Your task to perform on an android device: Open Android settings Image 0: 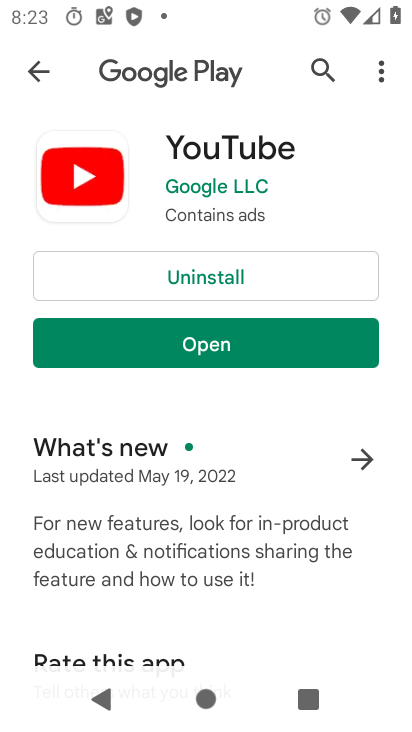
Step 0: press home button
Your task to perform on an android device: Open Android settings Image 1: 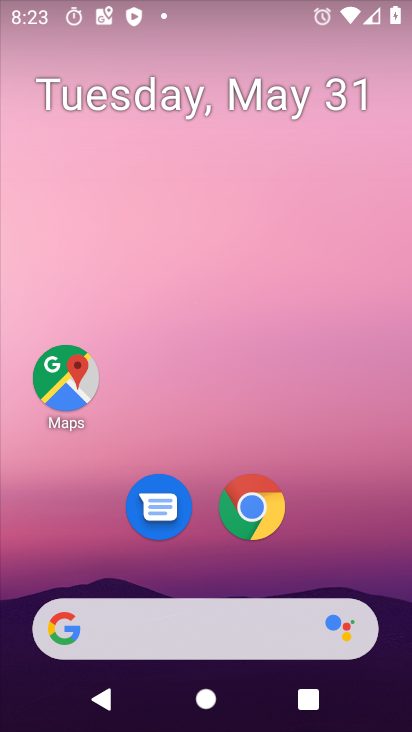
Step 1: drag from (347, 572) to (364, 2)
Your task to perform on an android device: Open Android settings Image 2: 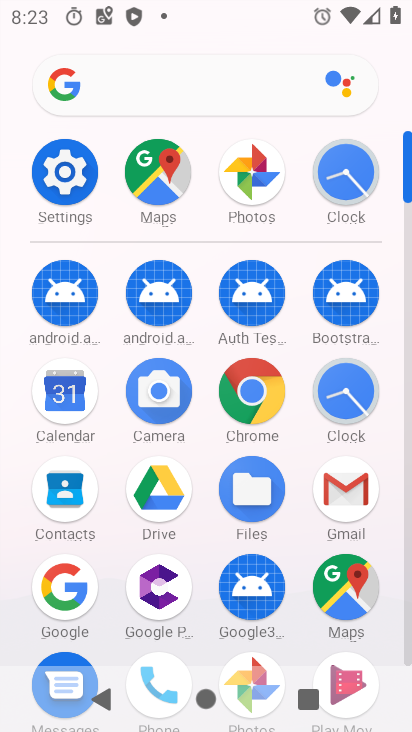
Step 2: click (70, 176)
Your task to perform on an android device: Open Android settings Image 3: 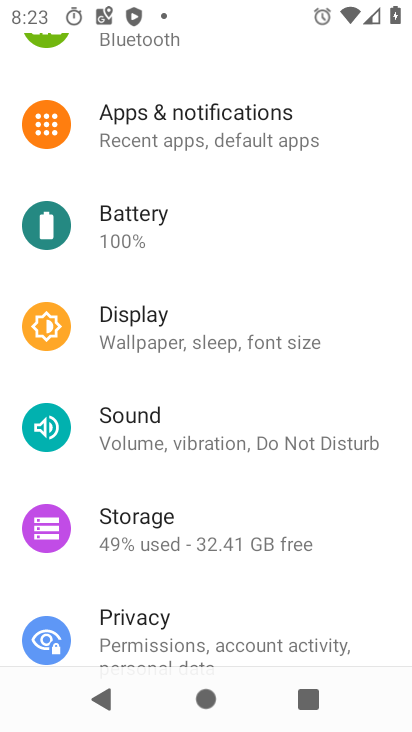
Step 3: task complete